Your task to perform on an android device: Open calendar and show me the fourth week of next month Image 0: 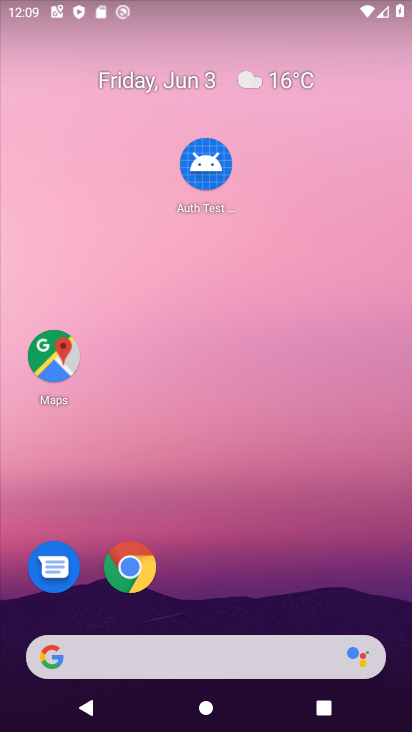
Step 0: click (185, 75)
Your task to perform on an android device: Open calendar and show me the fourth week of next month Image 1: 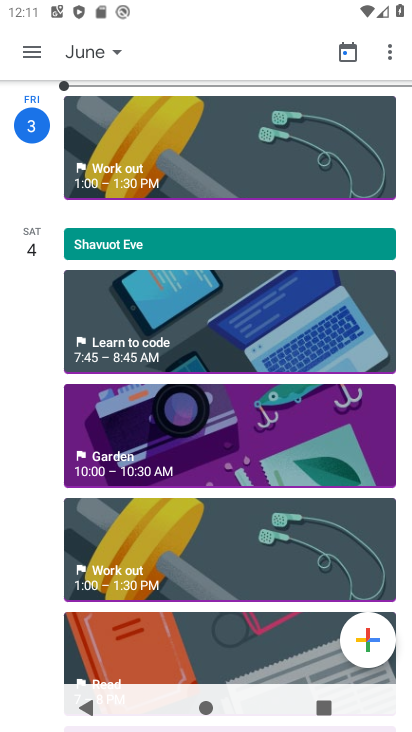
Step 1: click (108, 62)
Your task to perform on an android device: Open calendar and show me the fourth week of next month Image 2: 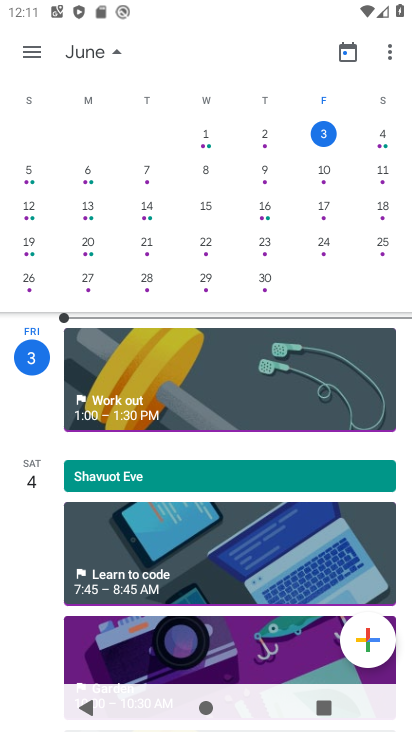
Step 2: drag from (374, 284) to (40, 276)
Your task to perform on an android device: Open calendar and show me the fourth week of next month Image 3: 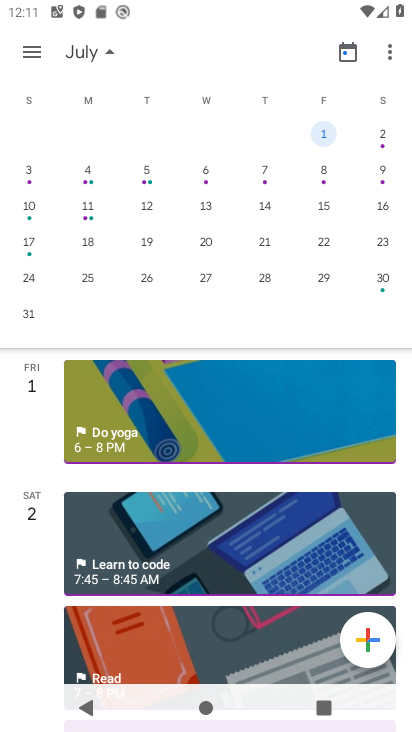
Step 3: click (328, 239)
Your task to perform on an android device: Open calendar and show me the fourth week of next month Image 4: 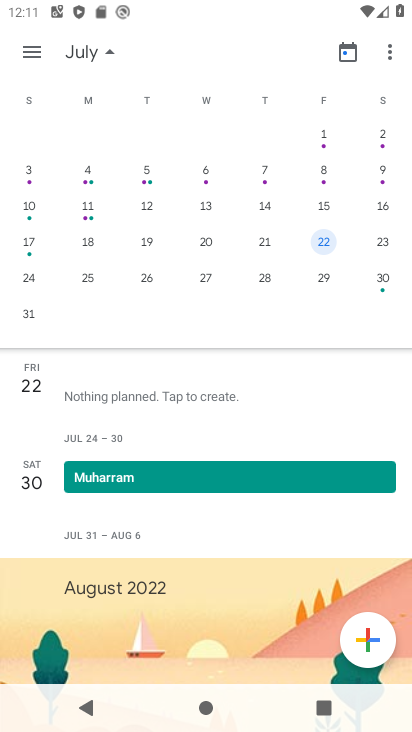
Step 4: task complete